Your task to perform on an android device: Open display settings Image 0: 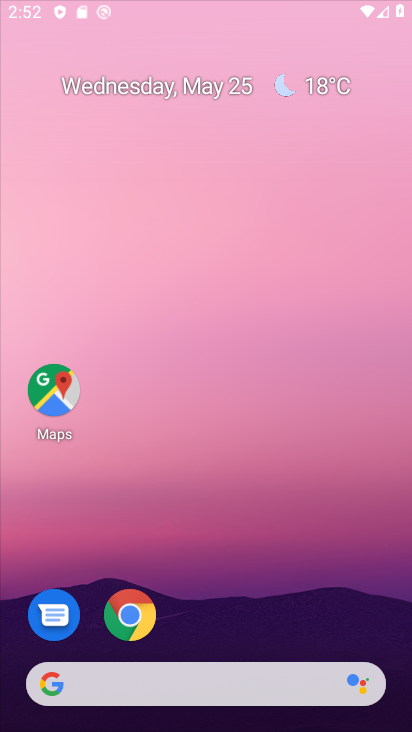
Step 0: click (199, 249)
Your task to perform on an android device: Open display settings Image 1: 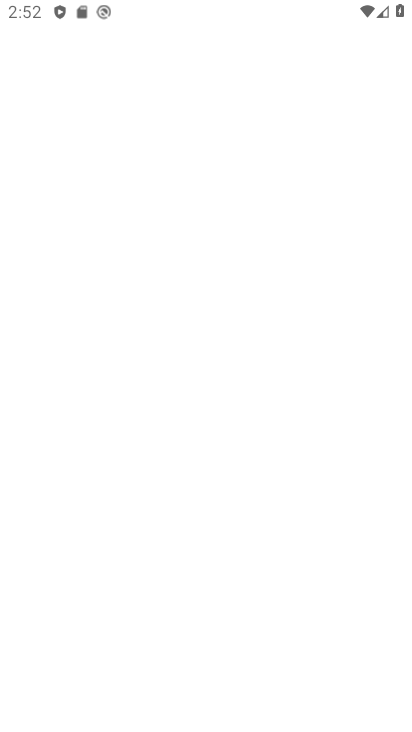
Step 1: press back button
Your task to perform on an android device: Open display settings Image 2: 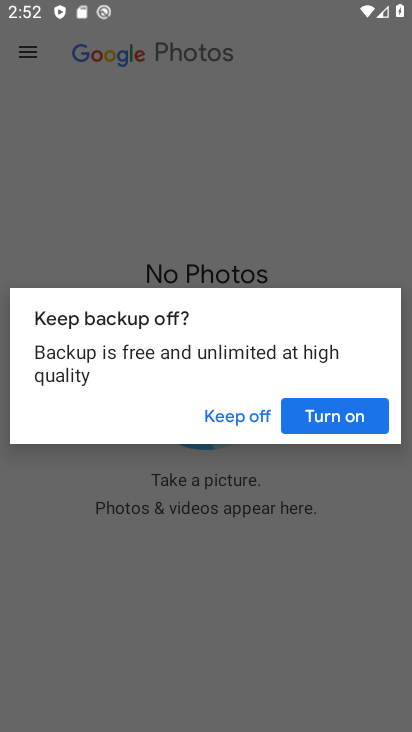
Step 2: press home button
Your task to perform on an android device: Open display settings Image 3: 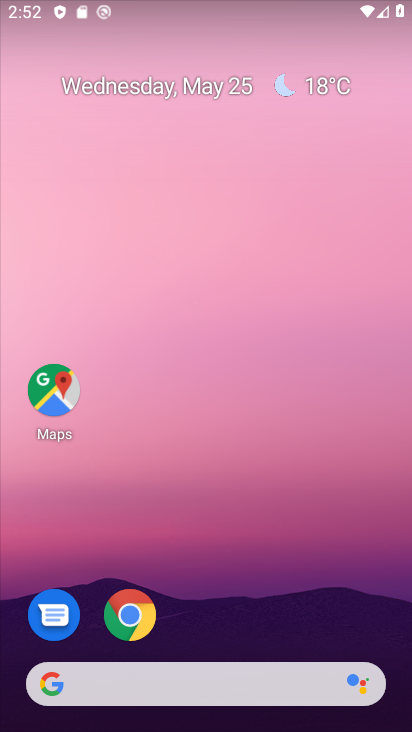
Step 3: drag from (228, 471) to (150, 98)
Your task to perform on an android device: Open display settings Image 4: 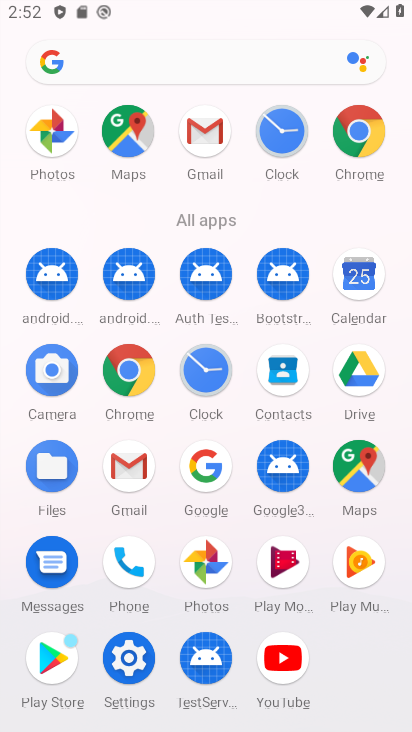
Step 4: click (127, 648)
Your task to perform on an android device: Open display settings Image 5: 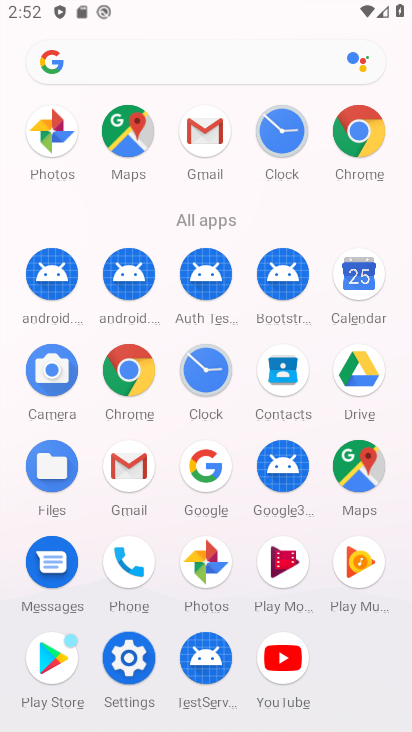
Step 5: click (127, 648)
Your task to perform on an android device: Open display settings Image 6: 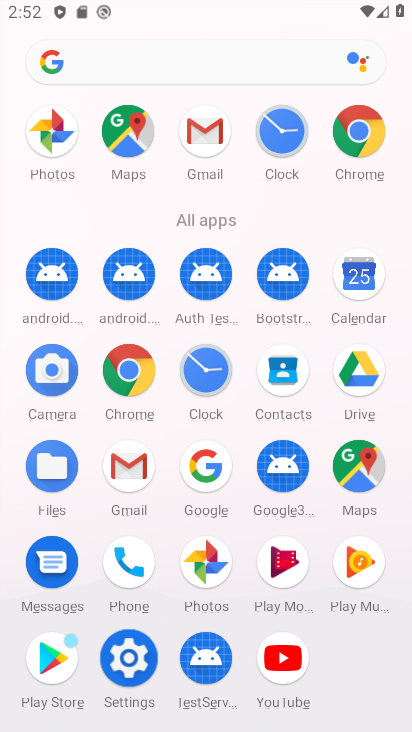
Step 6: click (127, 648)
Your task to perform on an android device: Open display settings Image 7: 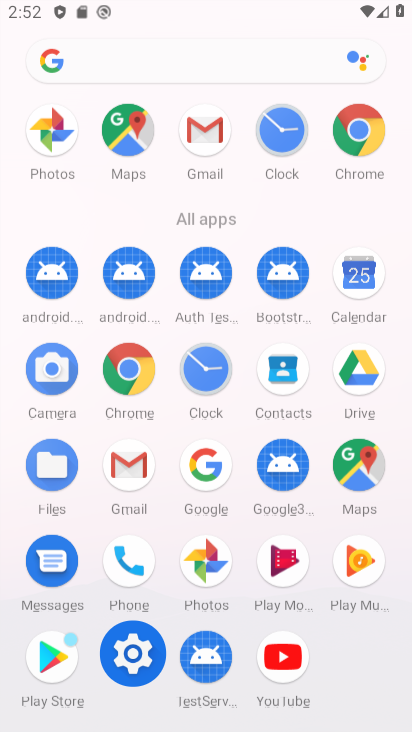
Step 7: click (127, 648)
Your task to perform on an android device: Open display settings Image 8: 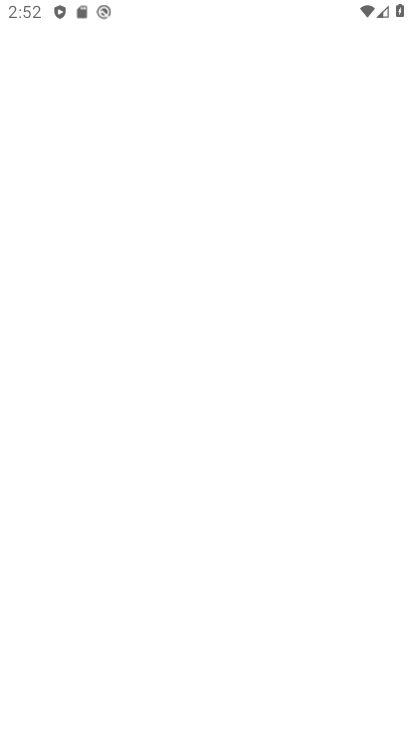
Step 8: click (117, 654)
Your task to perform on an android device: Open display settings Image 9: 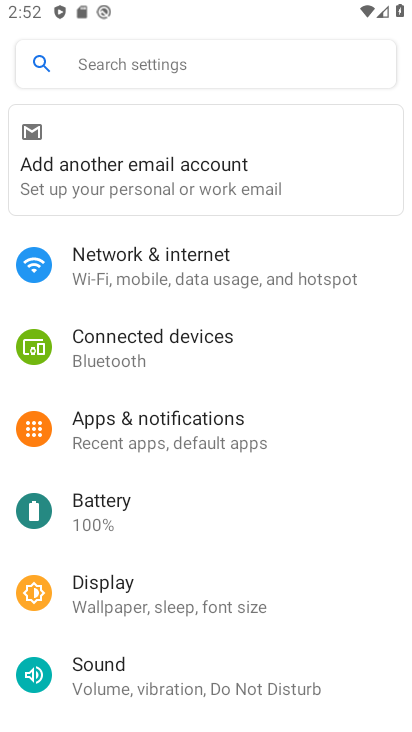
Step 9: click (103, 589)
Your task to perform on an android device: Open display settings Image 10: 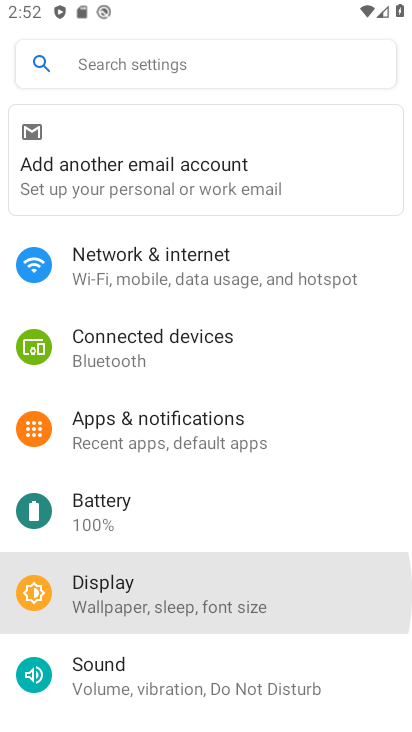
Step 10: click (102, 589)
Your task to perform on an android device: Open display settings Image 11: 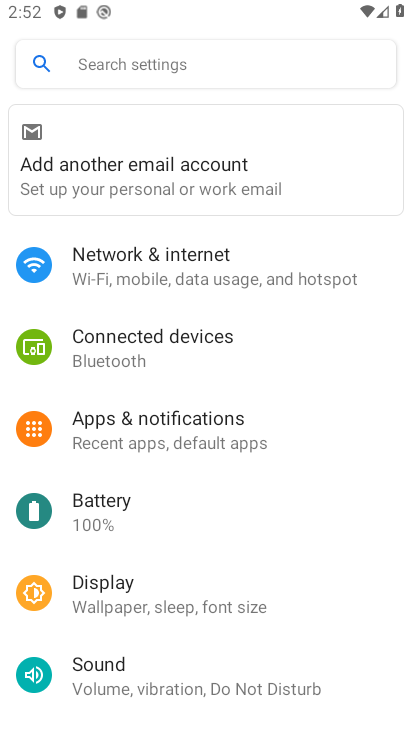
Step 11: click (101, 590)
Your task to perform on an android device: Open display settings Image 12: 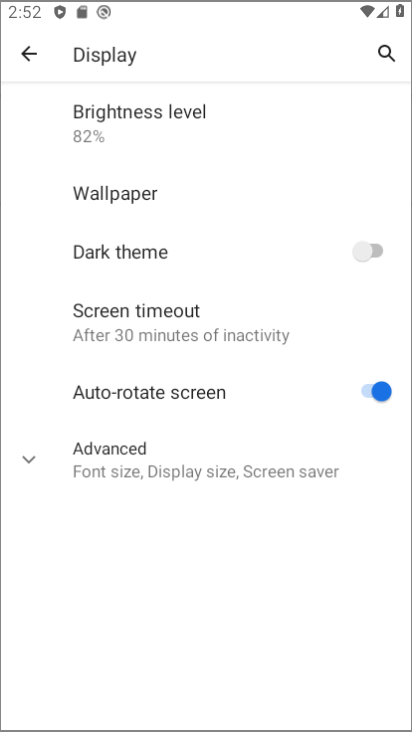
Step 12: click (101, 591)
Your task to perform on an android device: Open display settings Image 13: 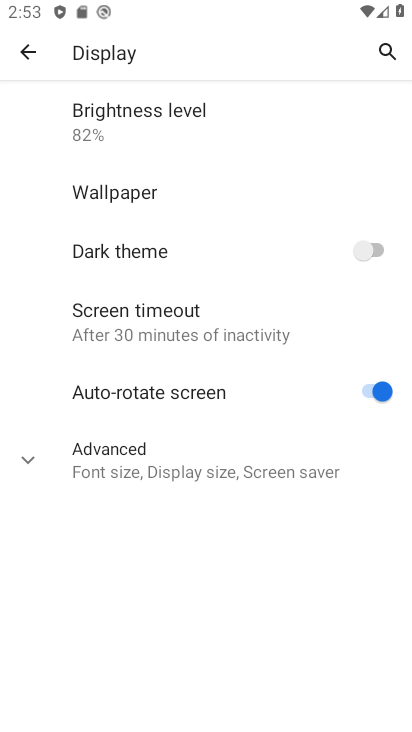
Step 13: task complete